Your task to perform on an android device: Open Amazon Image 0: 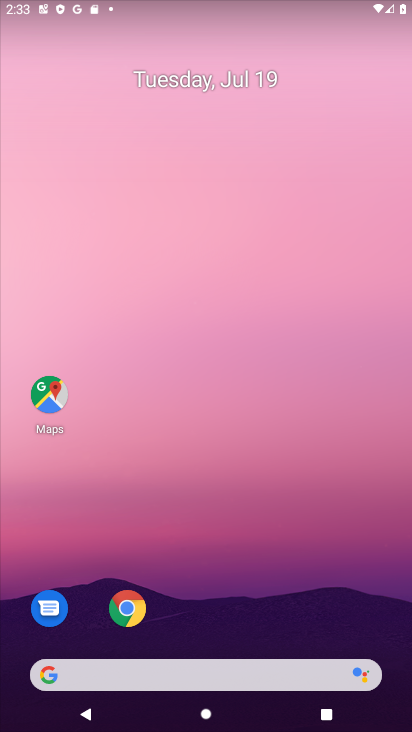
Step 0: drag from (323, 567) to (246, 76)
Your task to perform on an android device: Open Amazon Image 1: 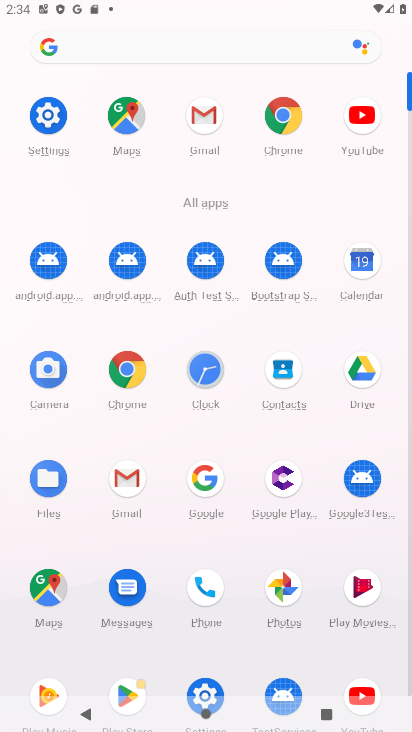
Step 1: click (279, 117)
Your task to perform on an android device: Open Amazon Image 2: 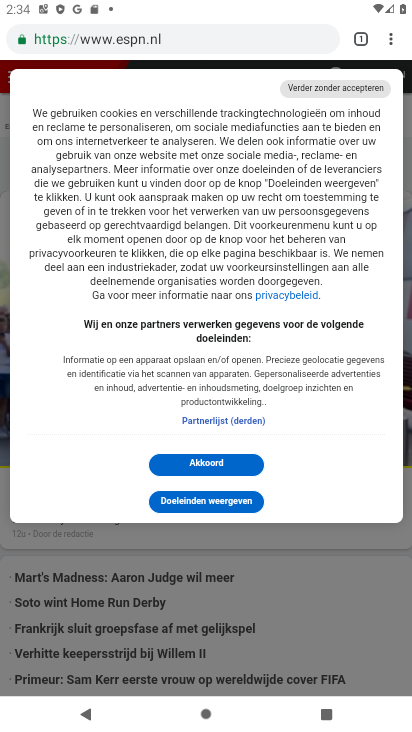
Step 2: click (249, 33)
Your task to perform on an android device: Open Amazon Image 3: 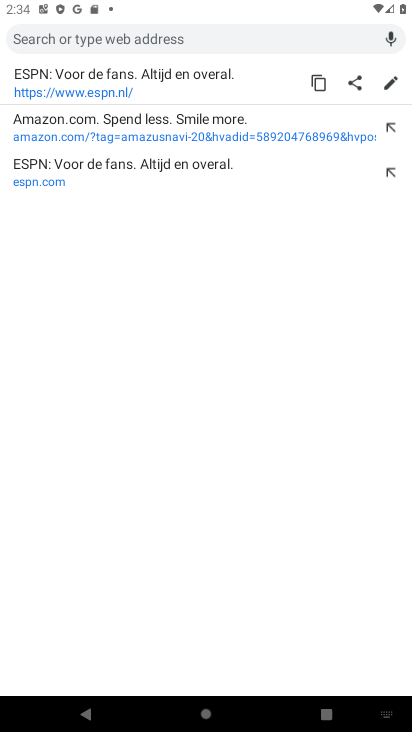
Step 3: click (40, 134)
Your task to perform on an android device: Open Amazon Image 4: 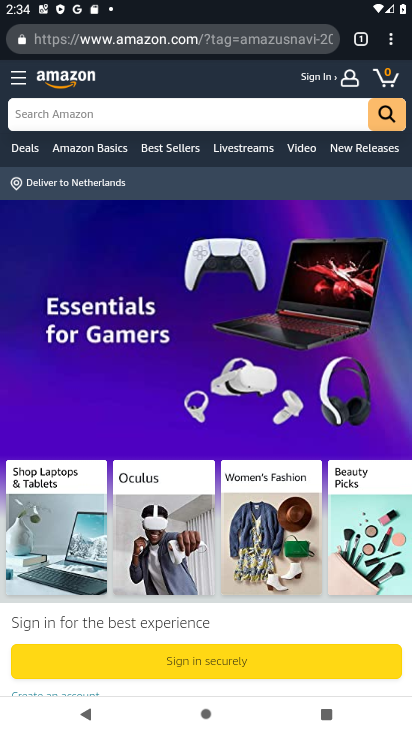
Step 4: task complete